Your task to perform on an android device: turn on showing notifications on the lock screen Image 0: 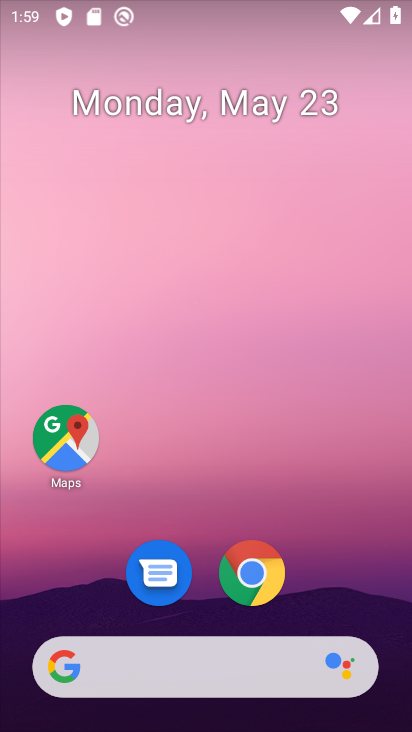
Step 0: drag from (295, 554) to (276, 75)
Your task to perform on an android device: turn on showing notifications on the lock screen Image 1: 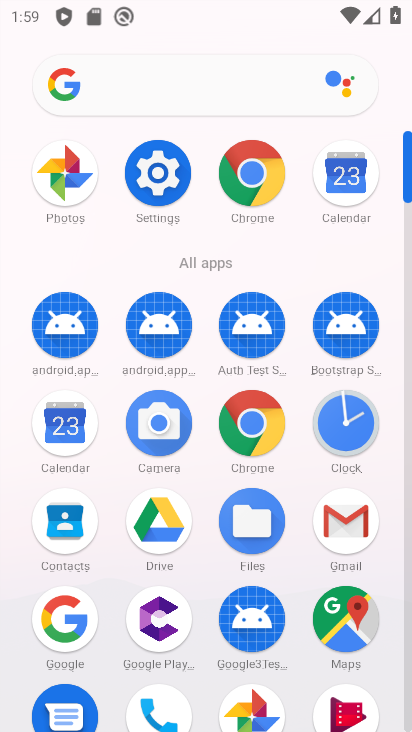
Step 1: click (175, 170)
Your task to perform on an android device: turn on showing notifications on the lock screen Image 2: 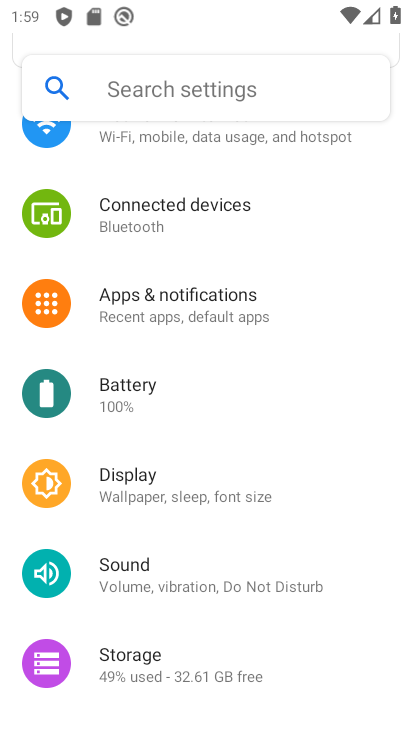
Step 2: drag from (246, 510) to (215, 700)
Your task to perform on an android device: turn on showing notifications on the lock screen Image 3: 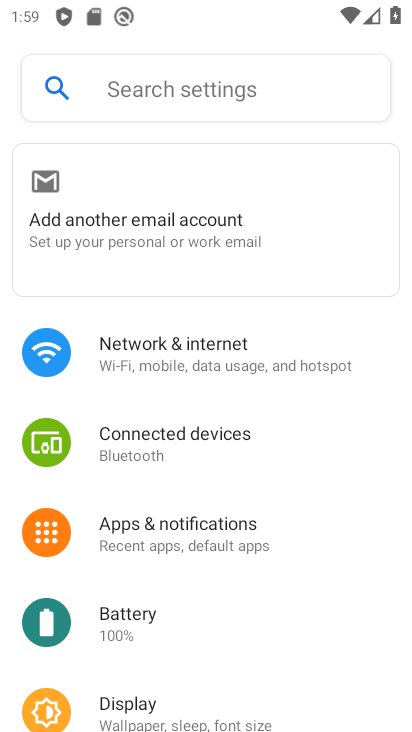
Step 3: click (205, 547)
Your task to perform on an android device: turn on showing notifications on the lock screen Image 4: 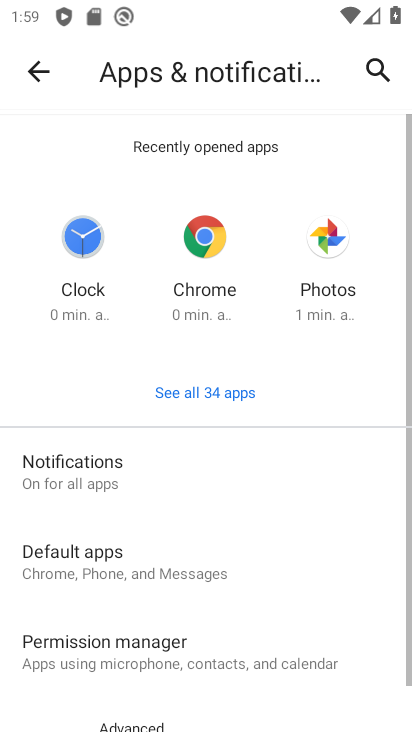
Step 4: click (112, 458)
Your task to perform on an android device: turn on showing notifications on the lock screen Image 5: 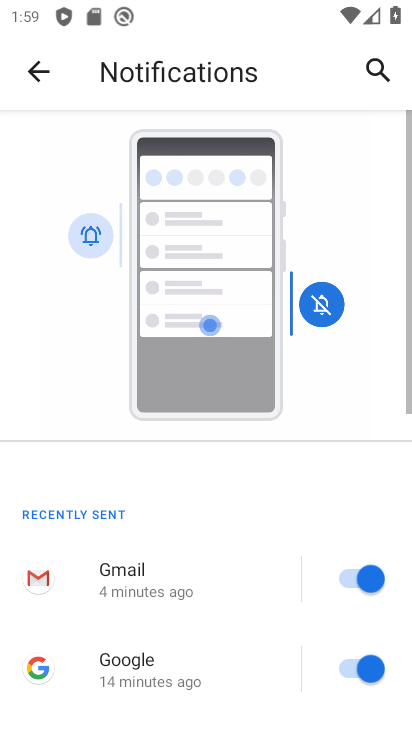
Step 5: drag from (224, 548) to (237, 61)
Your task to perform on an android device: turn on showing notifications on the lock screen Image 6: 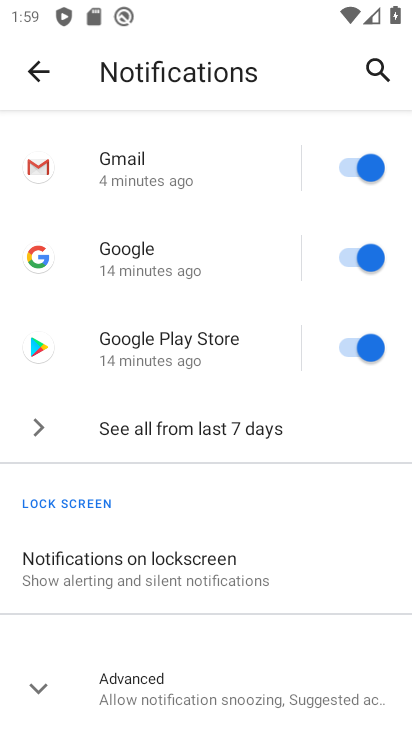
Step 6: click (177, 676)
Your task to perform on an android device: turn on showing notifications on the lock screen Image 7: 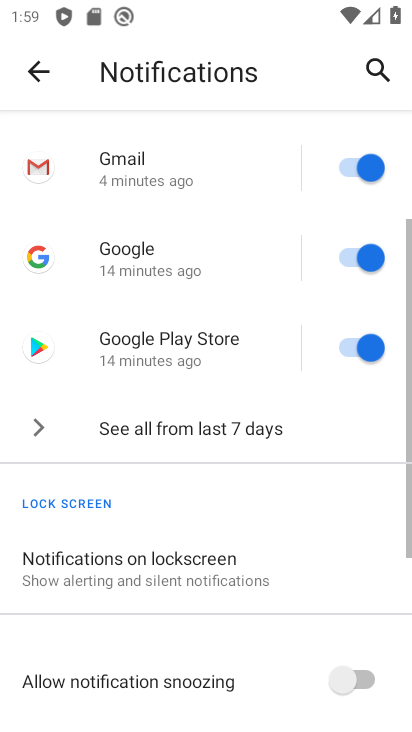
Step 7: drag from (221, 640) to (240, 236)
Your task to perform on an android device: turn on showing notifications on the lock screen Image 8: 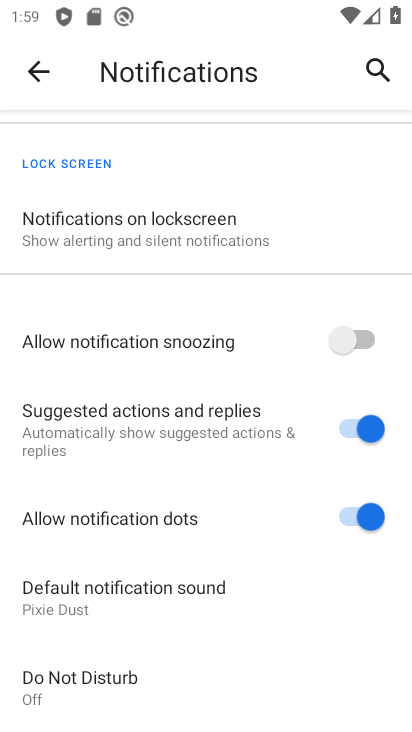
Step 8: click (158, 198)
Your task to perform on an android device: turn on showing notifications on the lock screen Image 9: 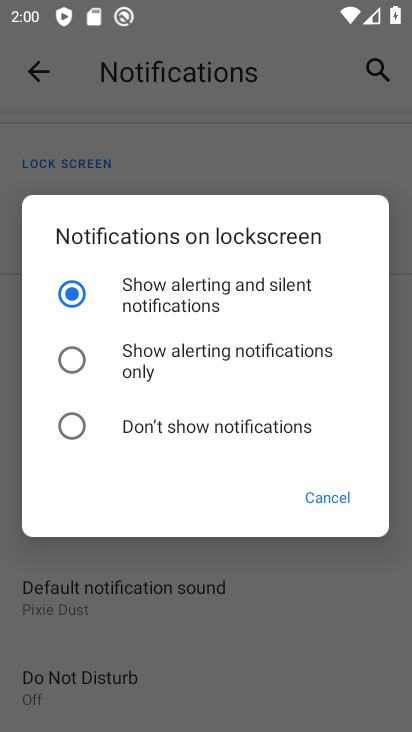
Step 9: click (141, 439)
Your task to perform on an android device: turn on showing notifications on the lock screen Image 10: 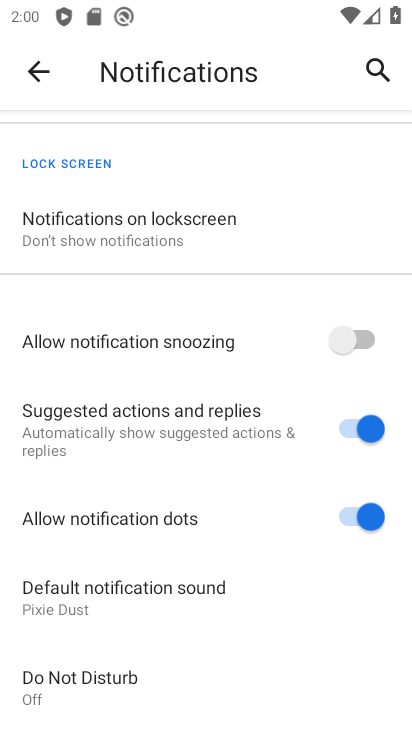
Step 10: click (221, 238)
Your task to perform on an android device: turn on showing notifications on the lock screen Image 11: 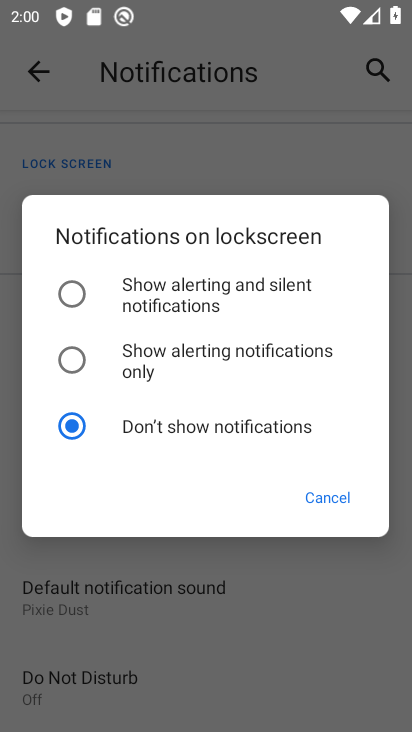
Step 11: click (194, 352)
Your task to perform on an android device: turn on showing notifications on the lock screen Image 12: 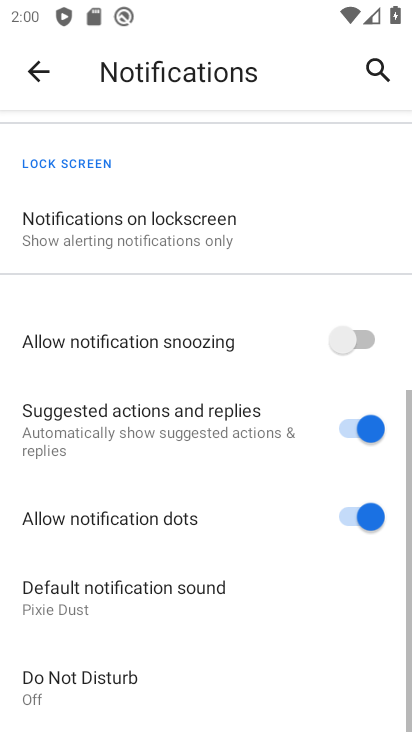
Step 12: task complete